Your task to perform on an android device: Go to location settings Image 0: 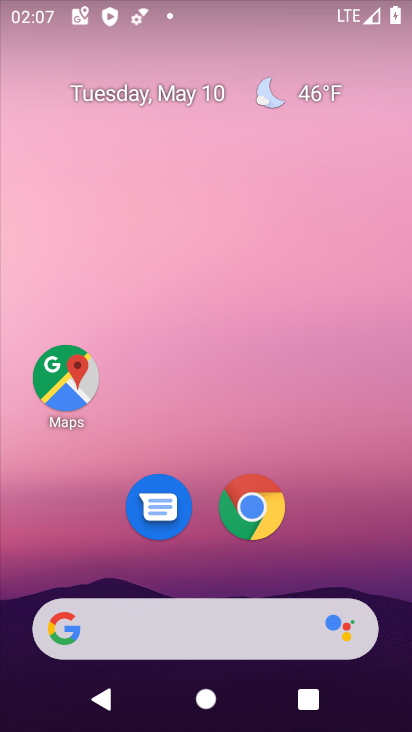
Step 0: drag from (246, 643) to (252, 189)
Your task to perform on an android device: Go to location settings Image 1: 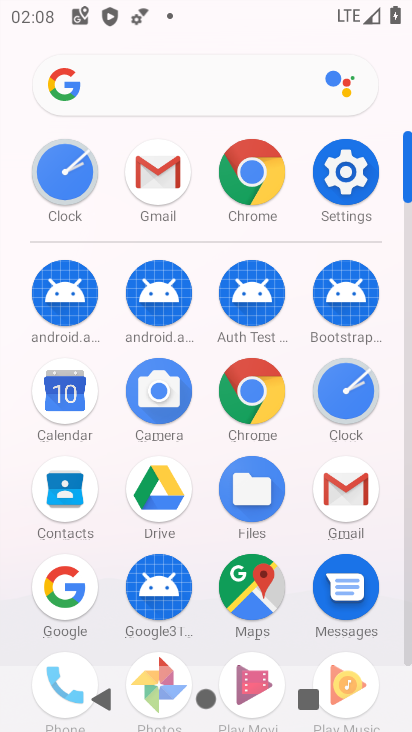
Step 1: click (354, 169)
Your task to perform on an android device: Go to location settings Image 2: 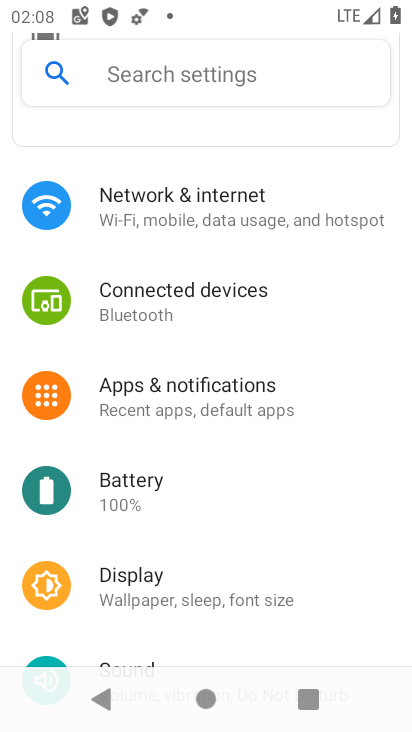
Step 2: click (253, 84)
Your task to perform on an android device: Go to location settings Image 3: 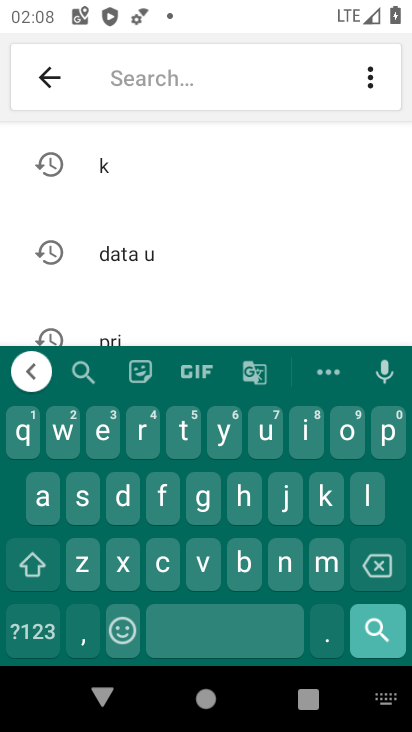
Step 3: click (363, 513)
Your task to perform on an android device: Go to location settings Image 4: 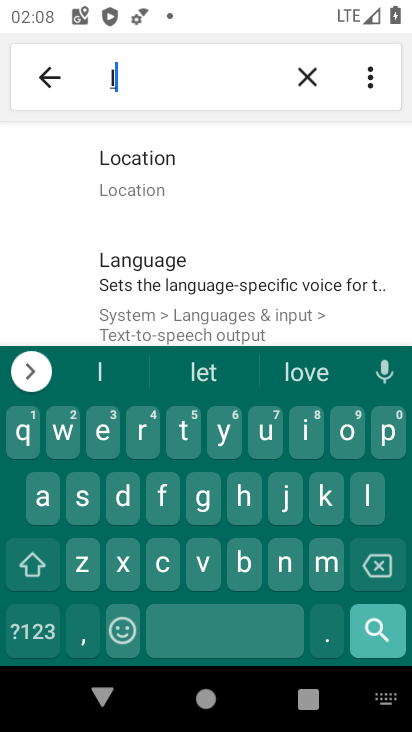
Step 4: click (197, 177)
Your task to perform on an android device: Go to location settings Image 5: 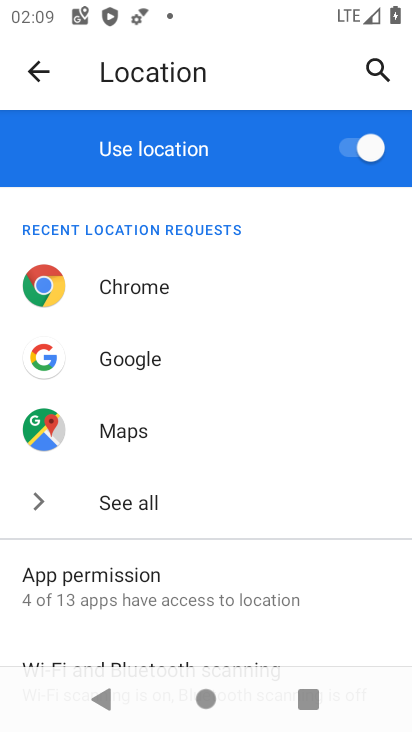
Step 5: task complete